Your task to perform on an android device: Show me popular games on the Play Store Image 0: 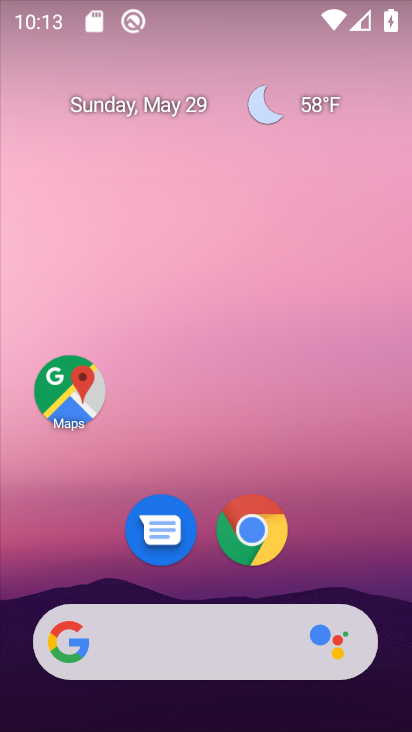
Step 0: drag from (238, 494) to (119, 3)
Your task to perform on an android device: Show me popular games on the Play Store Image 1: 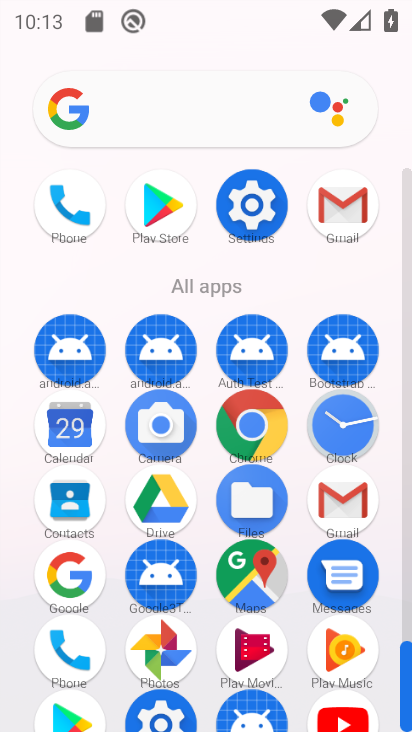
Step 1: click (152, 214)
Your task to perform on an android device: Show me popular games on the Play Store Image 2: 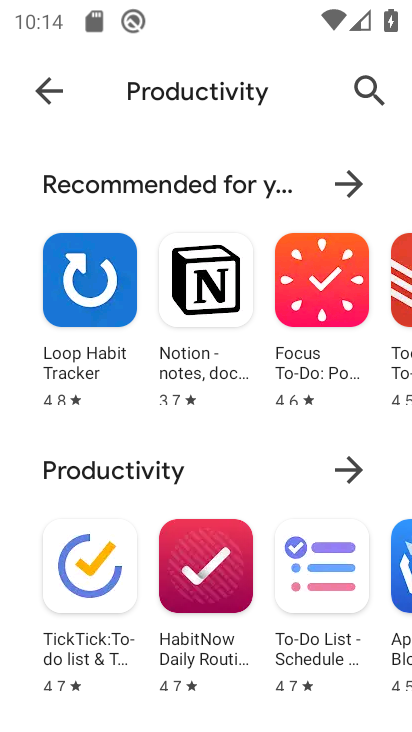
Step 2: click (52, 73)
Your task to perform on an android device: Show me popular games on the Play Store Image 3: 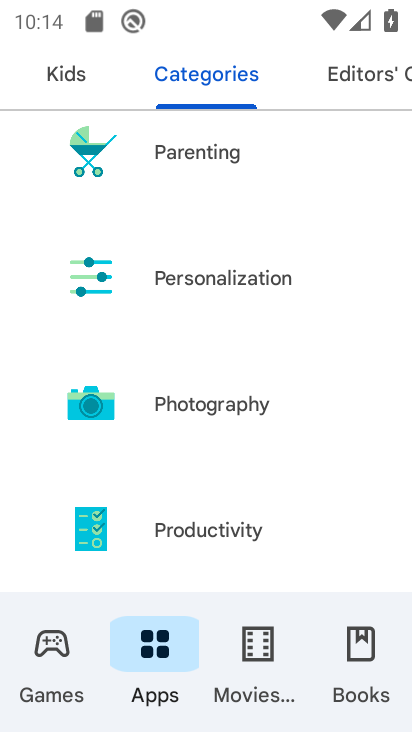
Step 3: click (59, 656)
Your task to perform on an android device: Show me popular games on the Play Store Image 4: 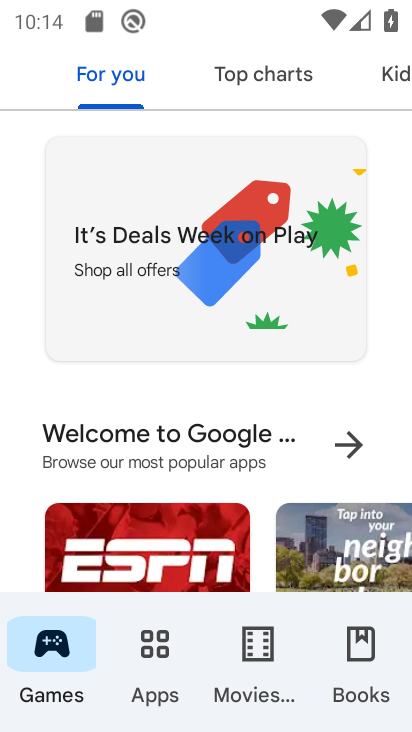
Step 4: drag from (221, 432) to (158, 28)
Your task to perform on an android device: Show me popular games on the Play Store Image 5: 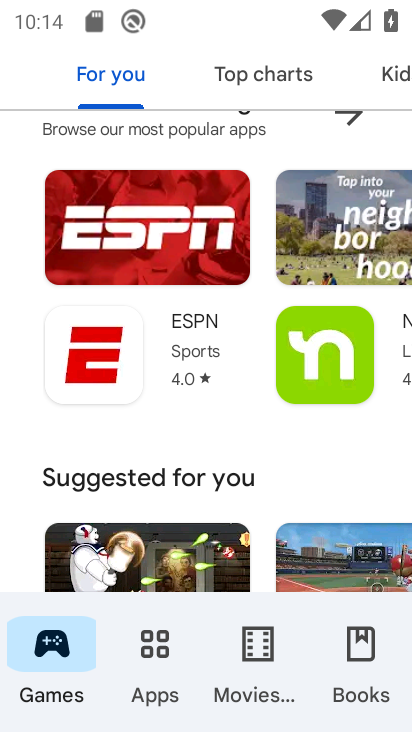
Step 5: drag from (120, 480) to (142, 178)
Your task to perform on an android device: Show me popular games on the Play Store Image 6: 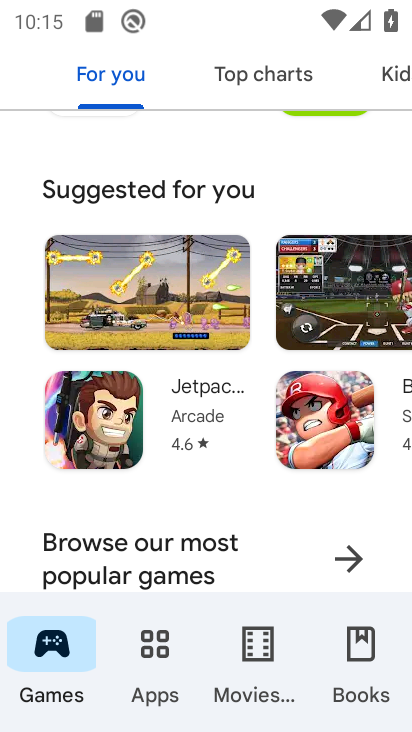
Step 6: click (245, 571)
Your task to perform on an android device: Show me popular games on the Play Store Image 7: 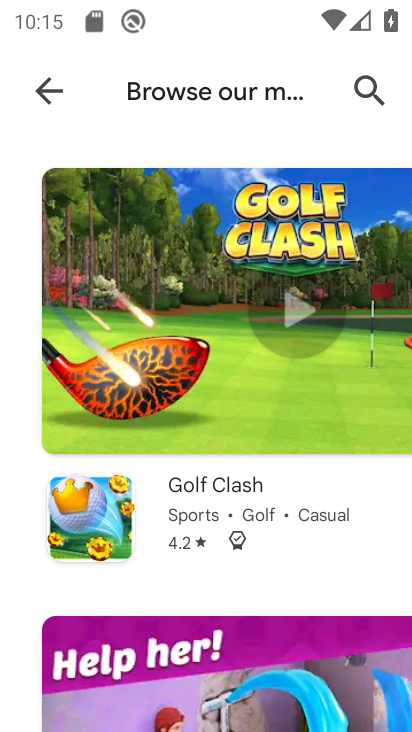
Step 7: task complete